Your task to perform on an android device: Open Youtube and go to the subscriptions tab Image 0: 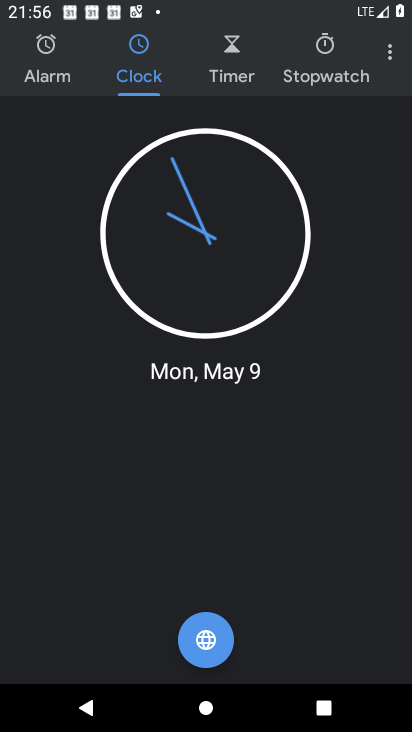
Step 0: press home button
Your task to perform on an android device: Open Youtube and go to the subscriptions tab Image 1: 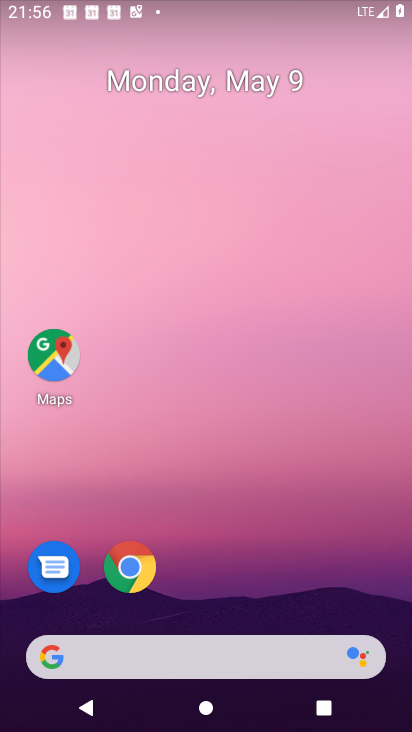
Step 1: drag from (203, 596) to (274, 72)
Your task to perform on an android device: Open Youtube and go to the subscriptions tab Image 2: 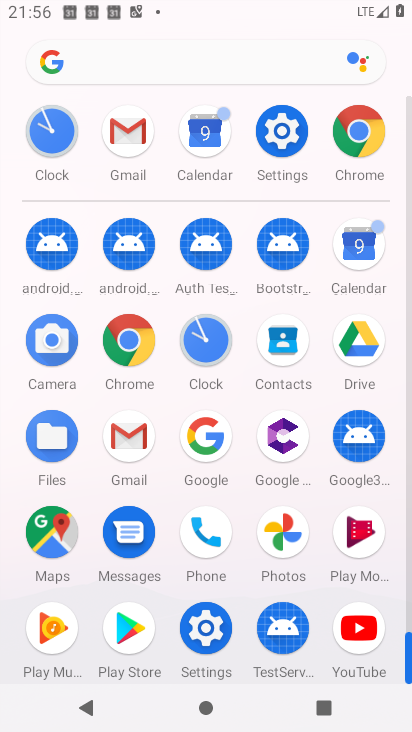
Step 2: click (356, 625)
Your task to perform on an android device: Open Youtube and go to the subscriptions tab Image 3: 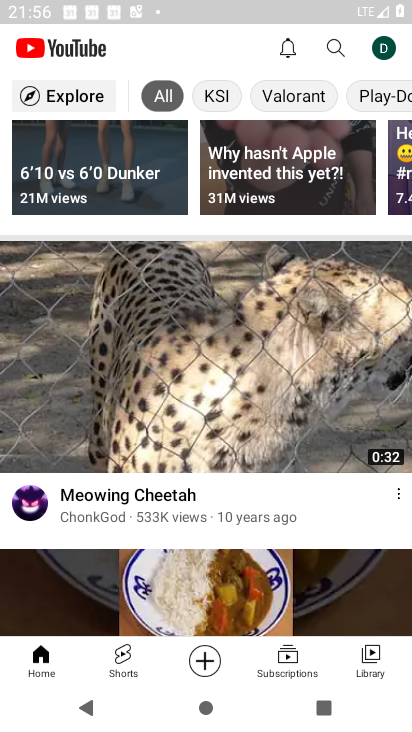
Step 3: click (277, 673)
Your task to perform on an android device: Open Youtube and go to the subscriptions tab Image 4: 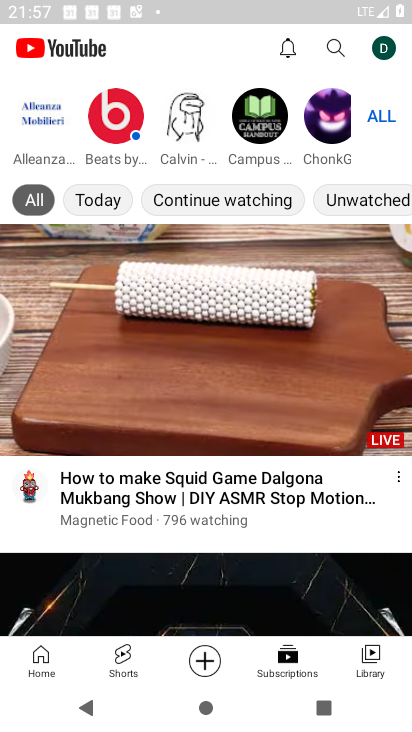
Step 4: task complete